Your task to perform on an android device: Go to calendar. Show me events next week Image 0: 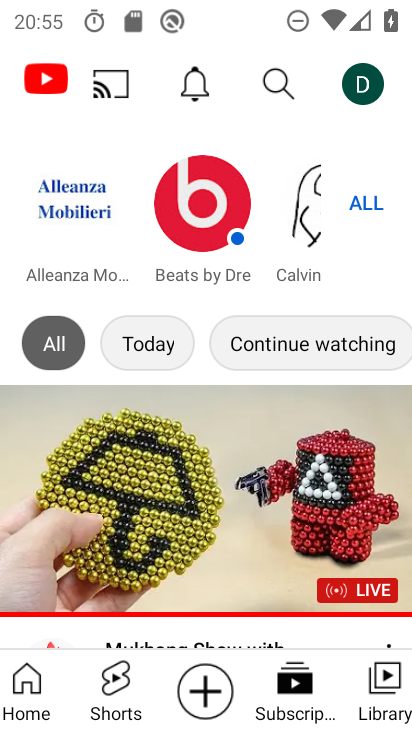
Step 0: press home button
Your task to perform on an android device: Go to calendar. Show me events next week Image 1: 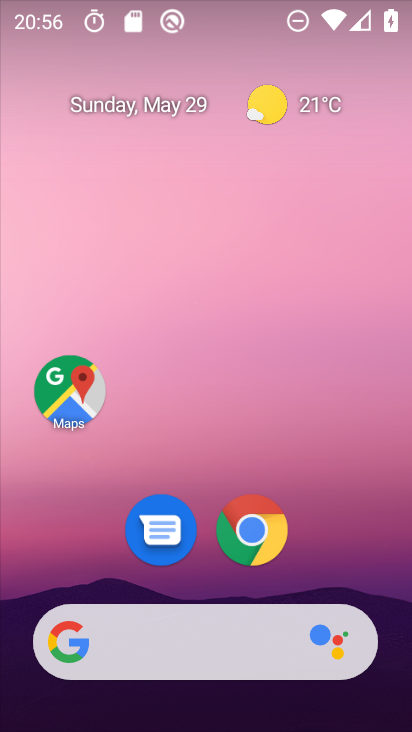
Step 1: drag from (184, 683) to (393, 120)
Your task to perform on an android device: Go to calendar. Show me events next week Image 2: 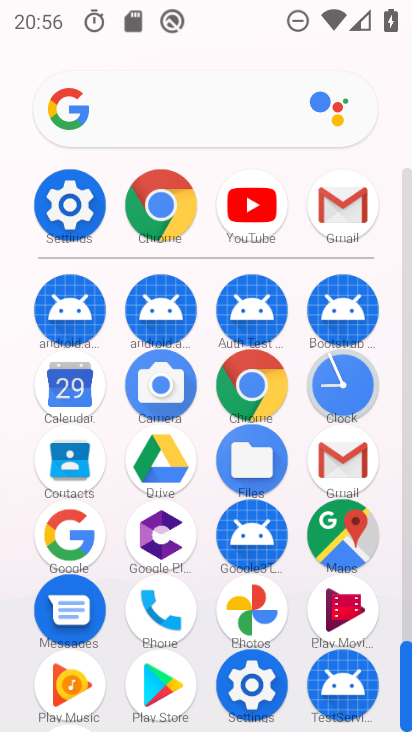
Step 2: click (43, 389)
Your task to perform on an android device: Go to calendar. Show me events next week Image 3: 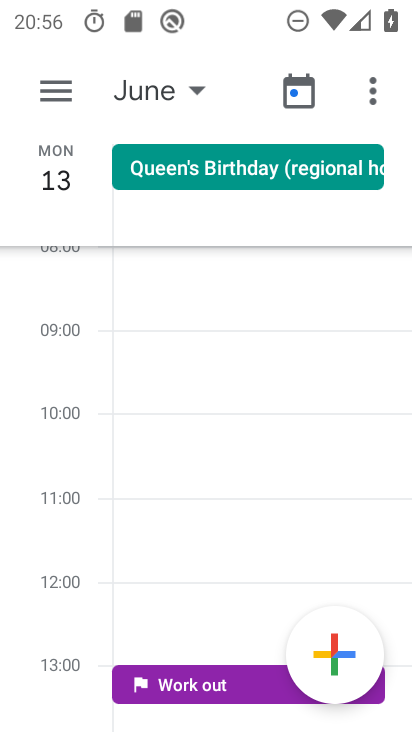
Step 3: click (61, 99)
Your task to perform on an android device: Go to calendar. Show me events next week Image 4: 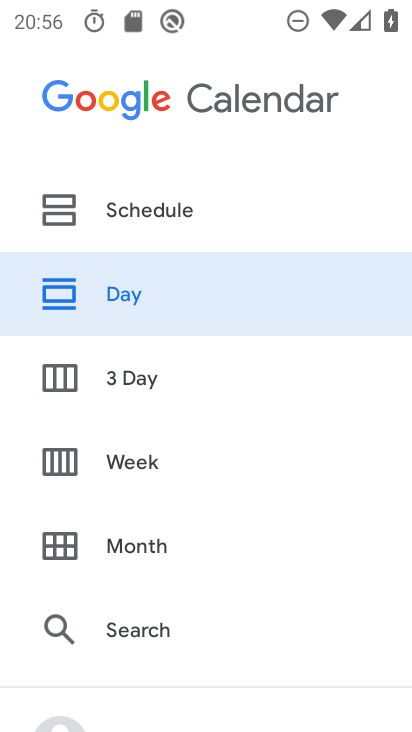
Step 4: drag from (126, 470) to (110, 576)
Your task to perform on an android device: Go to calendar. Show me events next week Image 5: 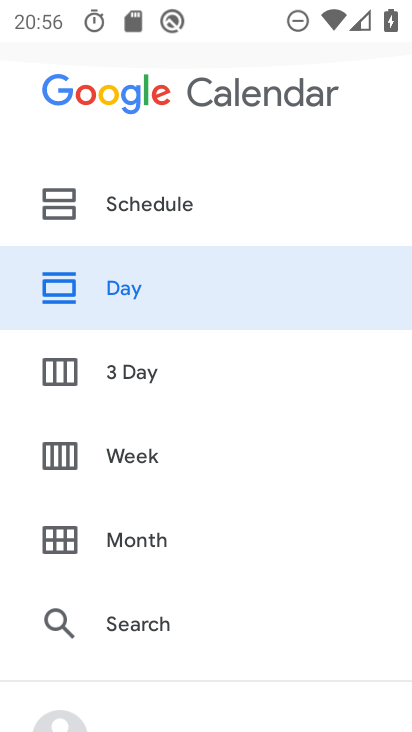
Step 5: click (138, 550)
Your task to perform on an android device: Go to calendar. Show me events next week Image 6: 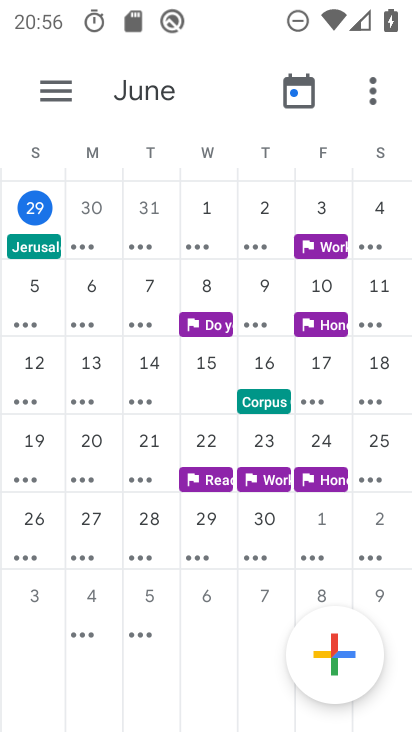
Step 6: drag from (61, 444) to (410, 313)
Your task to perform on an android device: Go to calendar. Show me events next week Image 7: 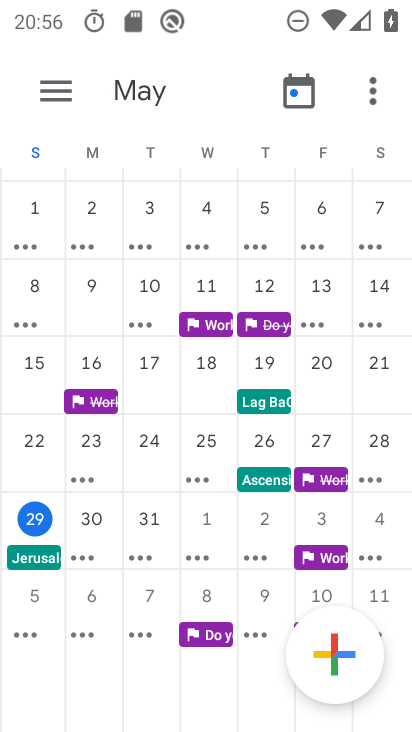
Step 7: click (42, 87)
Your task to perform on an android device: Go to calendar. Show me events next week Image 8: 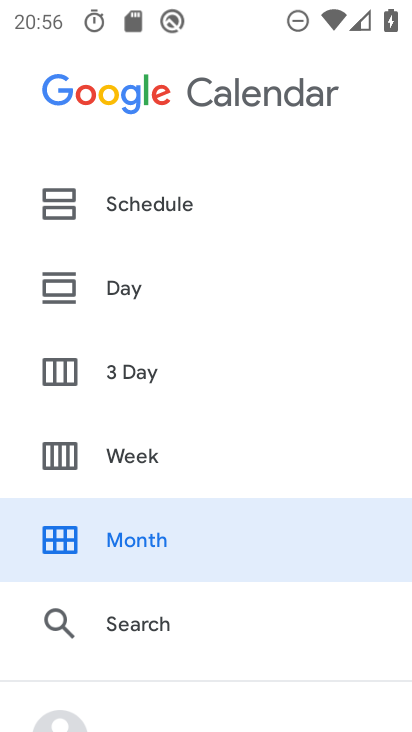
Step 8: click (89, 452)
Your task to perform on an android device: Go to calendar. Show me events next week Image 9: 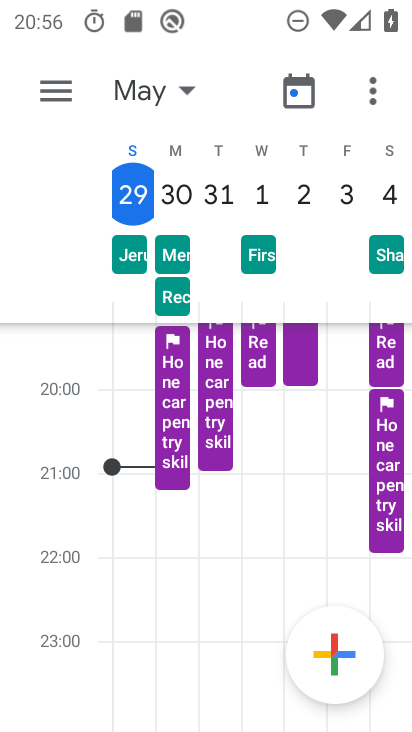
Step 9: task complete